Your task to perform on an android device: change text size in settings app Image 0: 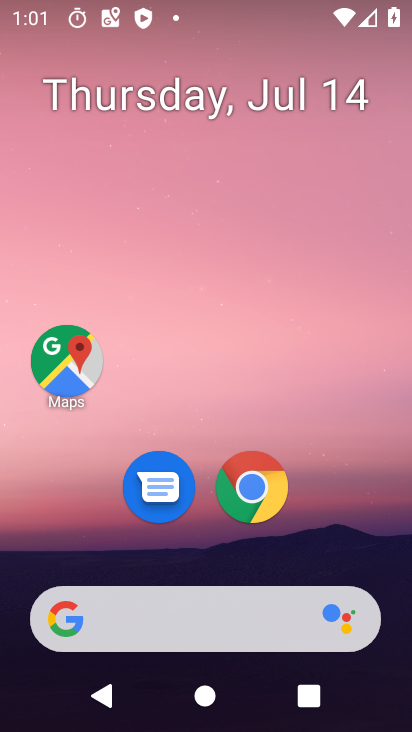
Step 0: drag from (171, 356) to (176, 223)
Your task to perform on an android device: change text size in settings app Image 1: 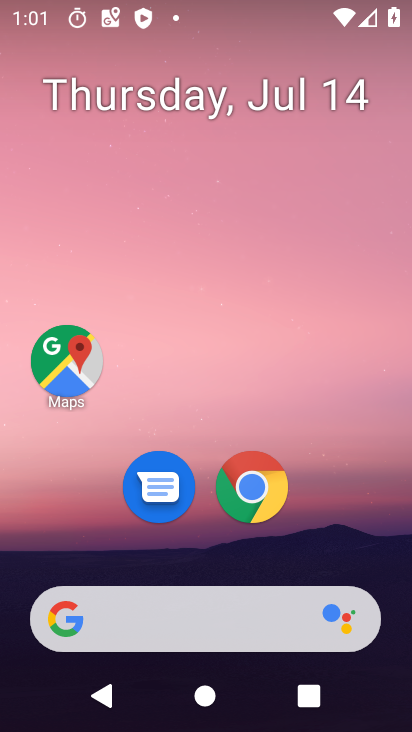
Step 1: drag from (155, 636) to (158, 214)
Your task to perform on an android device: change text size in settings app Image 2: 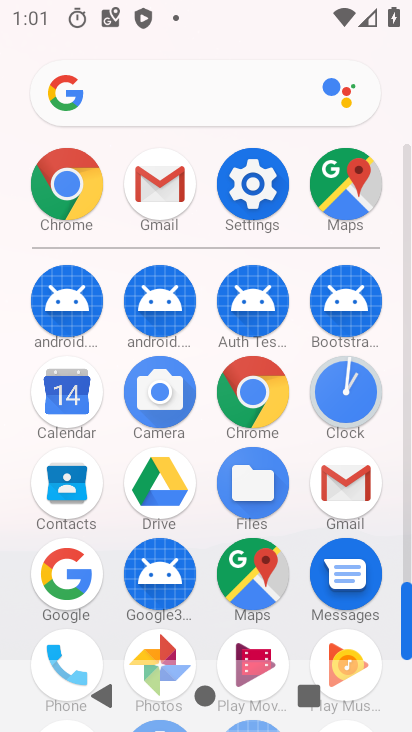
Step 2: click (264, 205)
Your task to perform on an android device: change text size in settings app Image 3: 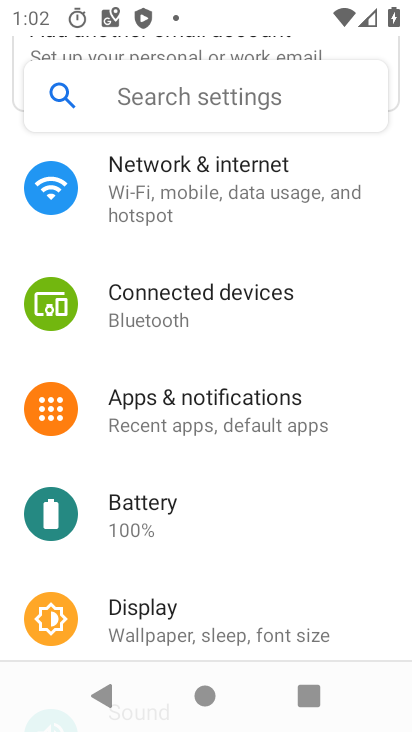
Step 3: click (184, 617)
Your task to perform on an android device: change text size in settings app Image 4: 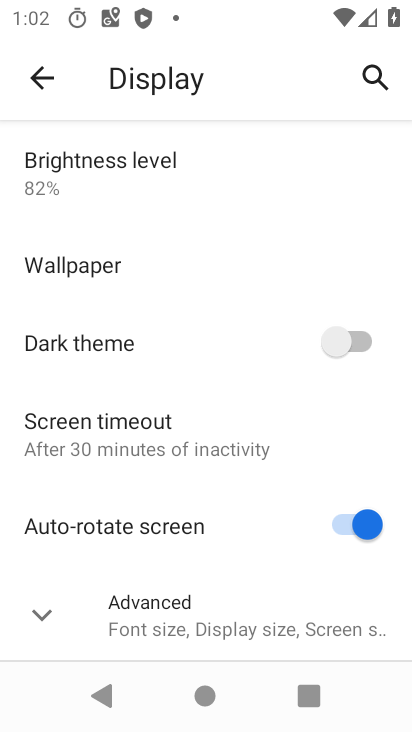
Step 4: drag from (178, 565) to (178, 339)
Your task to perform on an android device: change text size in settings app Image 5: 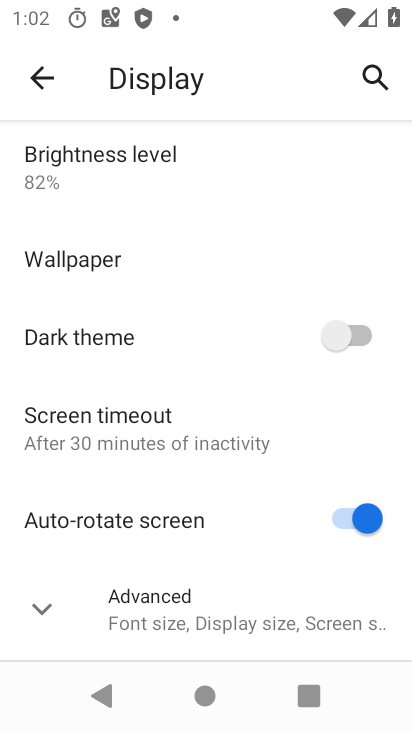
Step 5: click (133, 613)
Your task to perform on an android device: change text size in settings app Image 6: 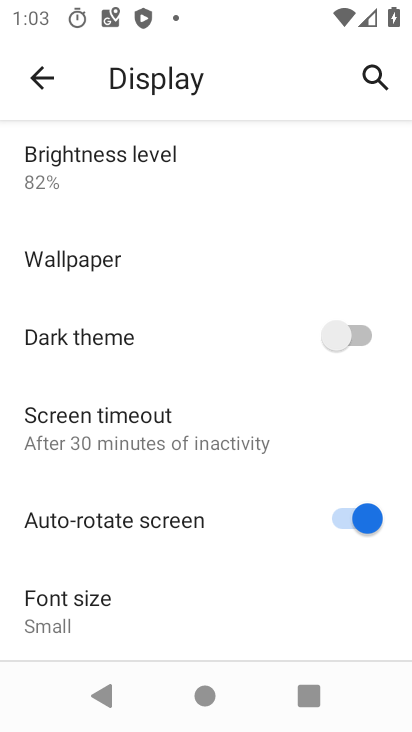
Step 6: drag from (126, 582) to (118, 299)
Your task to perform on an android device: change text size in settings app Image 7: 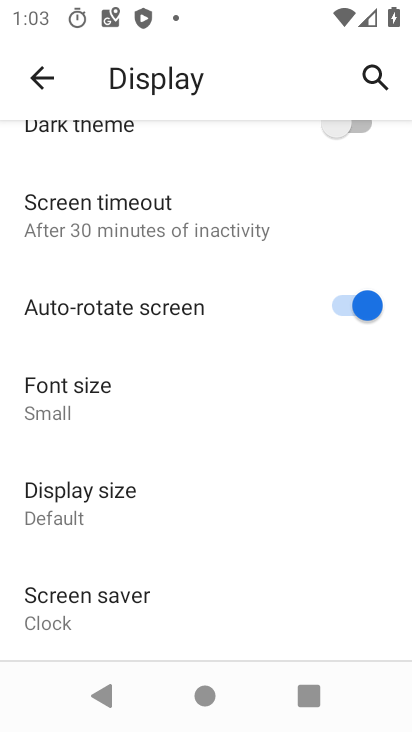
Step 7: click (84, 402)
Your task to perform on an android device: change text size in settings app Image 8: 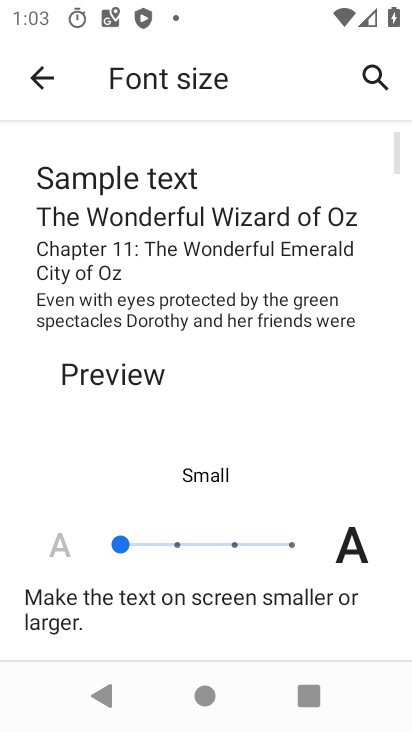
Step 8: click (173, 548)
Your task to perform on an android device: change text size in settings app Image 9: 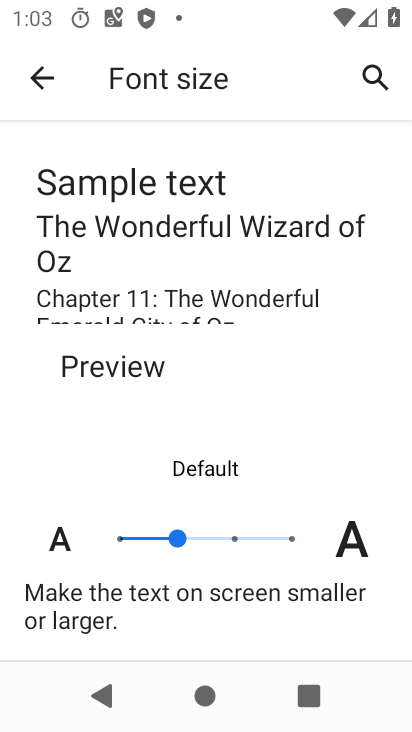
Step 9: task complete